Your task to perform on an android device: set the timer Image 0: 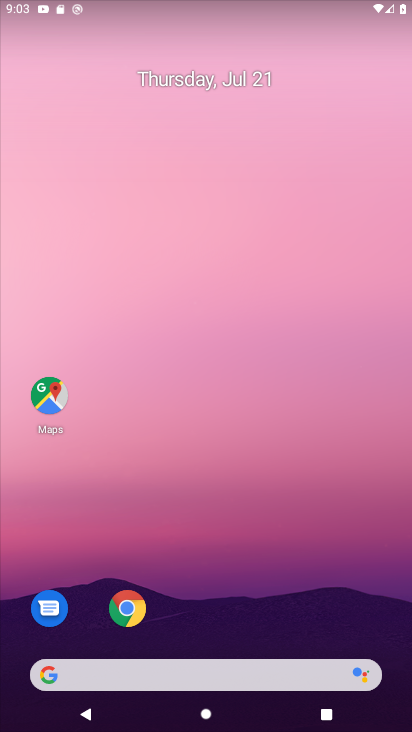
Step 0: click (213, 643)
Your task to perform on an android device: set the timer Image 1: 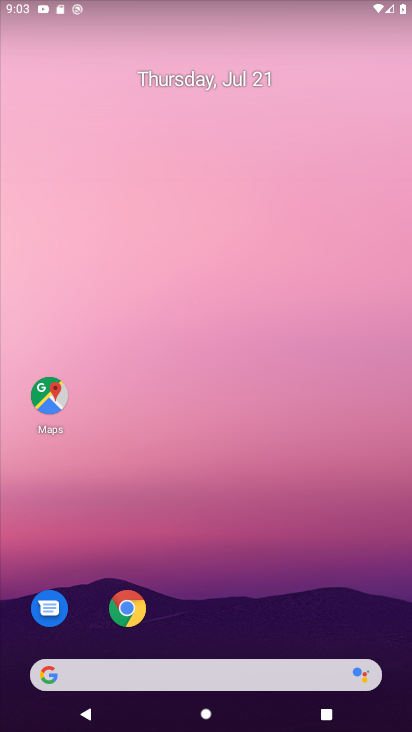
Step 1: drag from (171, 560) to (138, 274)
Your task to perform on an android device: set the timer Image 2: 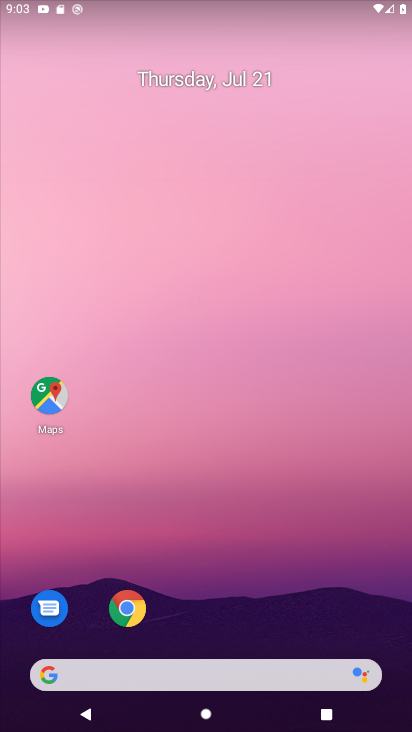
Step 2: drag from (215, 580) to (215, 50)
Your task to perform on an android device: set the timer Image 3: 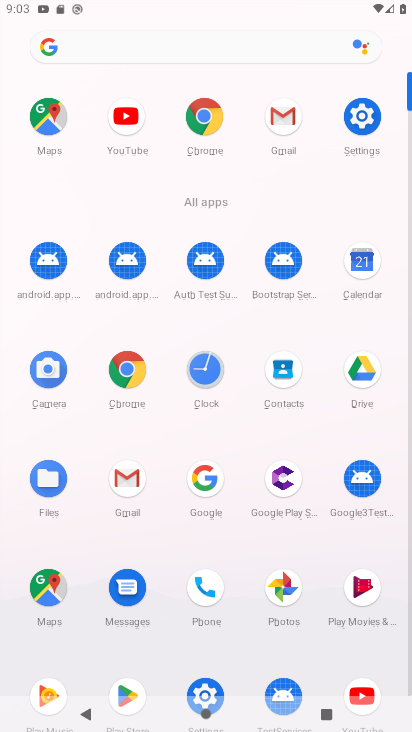
Step 3: click (194, 388)
Your task to perform on an android device: set the timer Image 4: 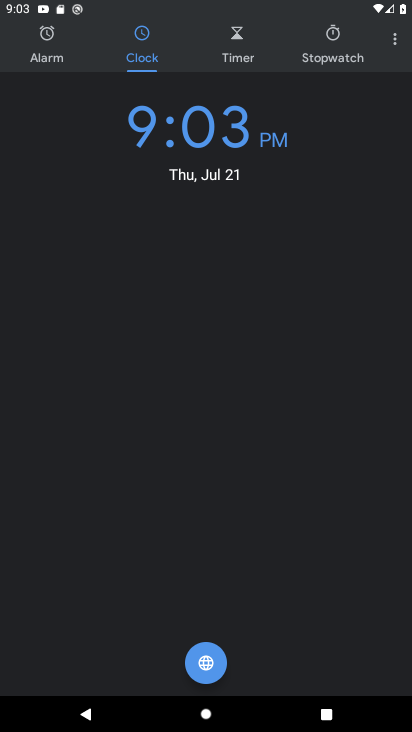
Step 4: click (395, 42)
Your task to perform on an android device: set the timer Image 5: 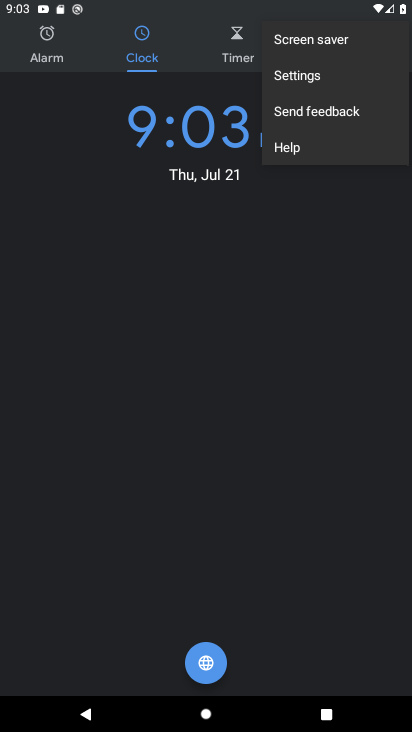
Step 5: click (228, 64)
Your task to perform on an android device: set the timer Image 6: 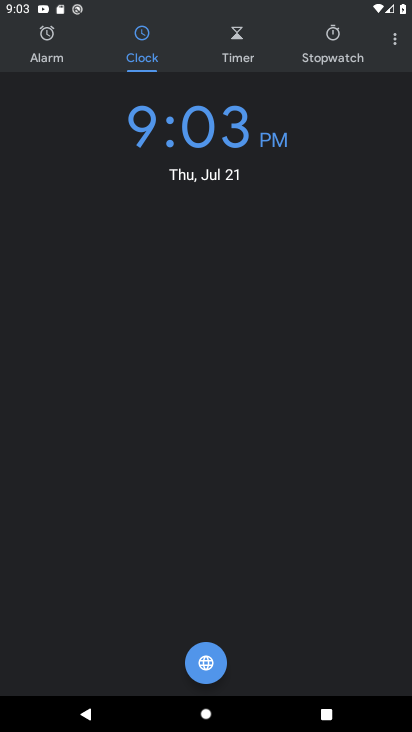
Step 6: click (228, 64)
Your task to perform on an android device: set the timer Image 7: 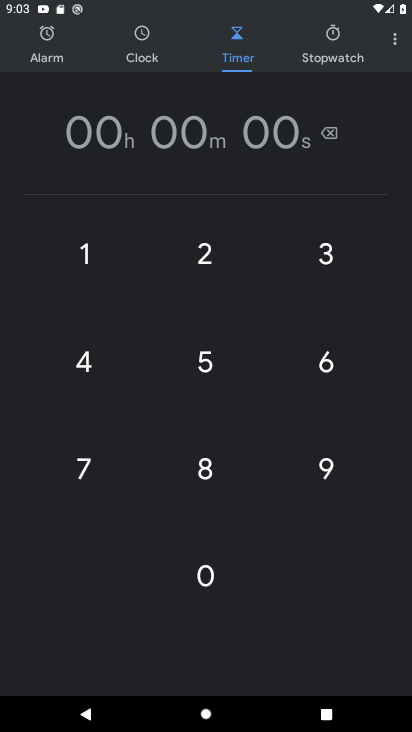
Step 7: click (195, 262)
Your task to perform on an android device: set the timer Image 8: 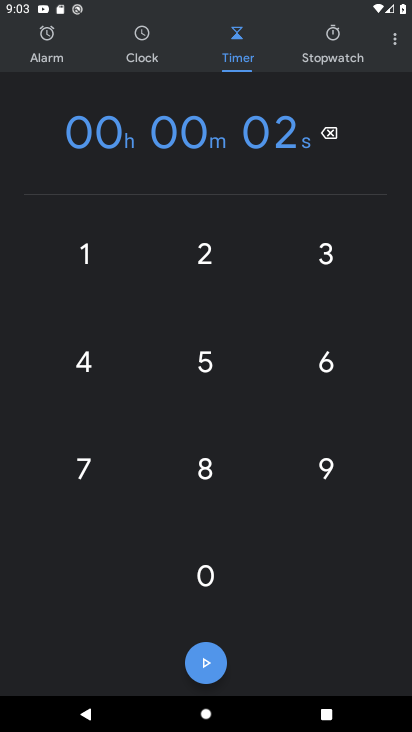
Step 8: click (222, 585)
Your task to perform on an android device: set the timer Image 9: 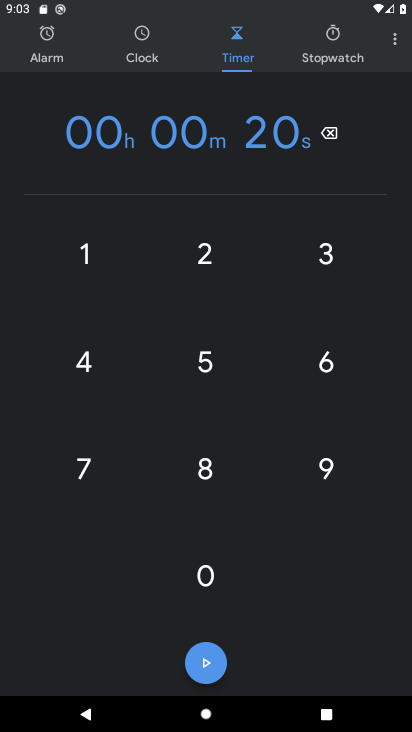
Step 9: click (202, 585)
Your task to perform on an android device: set the timer Image 10: 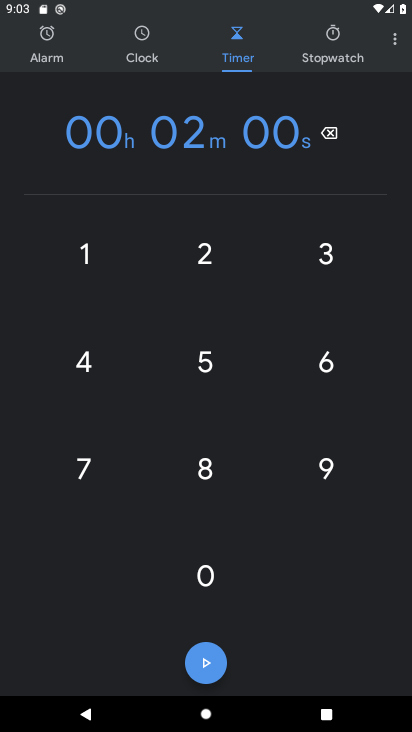
Step 10: click (202, 585)
Your task to perform on an android device: set the timer Image 11: 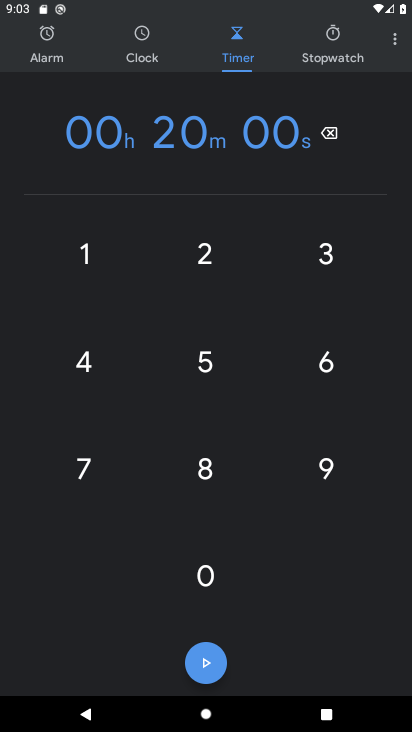
Step 11: click (202, 668)
Your task to perform on an android device: set the timer Image 12: 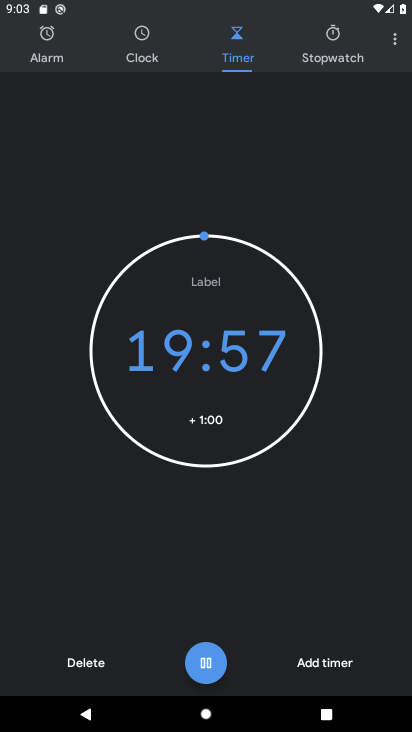
Step 12: click (318, 673)
Your task to perform on an android device: set the timer Image 13: 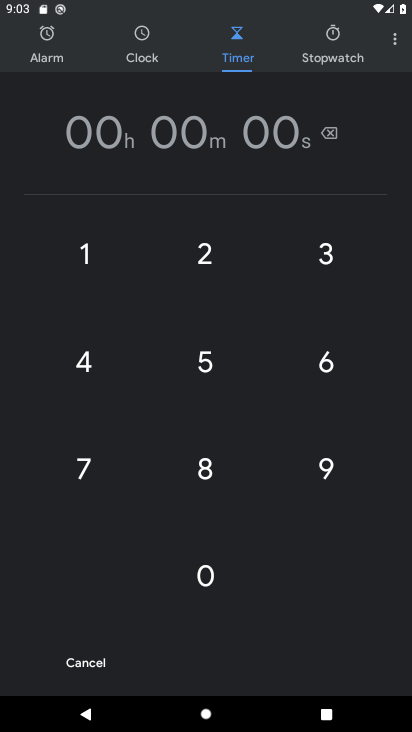
Step 13: task complete